Your task to perform on an android device: Open notification settings Image 0: 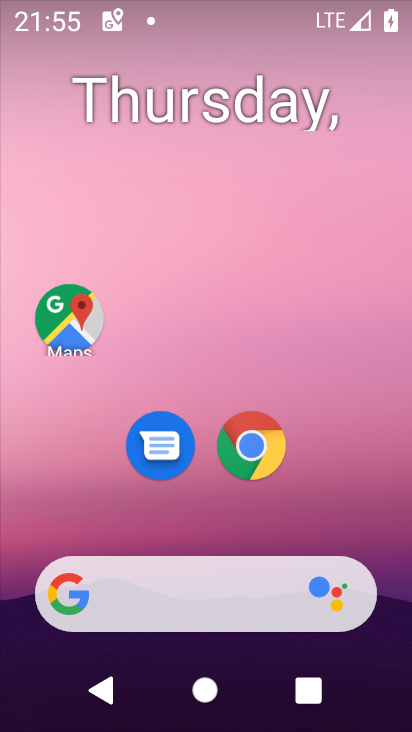
Step 0: drag from (190, 526) to (232, 170)
Your task to perform on an android device: Open notification settings Image 1: 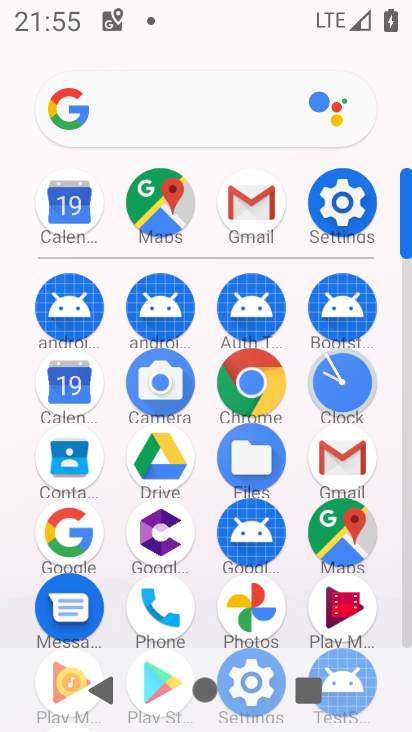
Step 1: click (342, 202)
Your task to perform on an android device: Open notification settings Image 2: 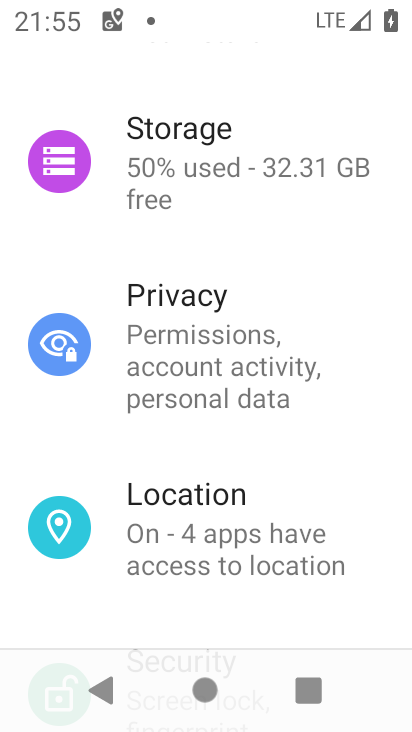
Step 2: drag from (169, 589) to (245, 126)
Your task to perform on an android device: Open notification settings Image 3: 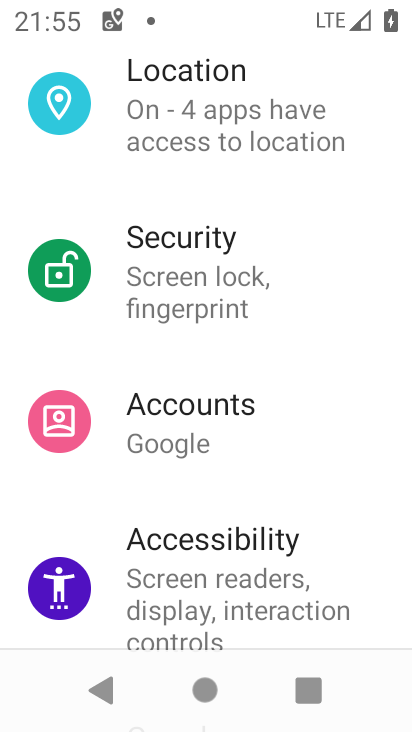
Step 3: drag from (216, 593) to (266, 215)
Your task to perform on an android device: Open notification settings Image 4: 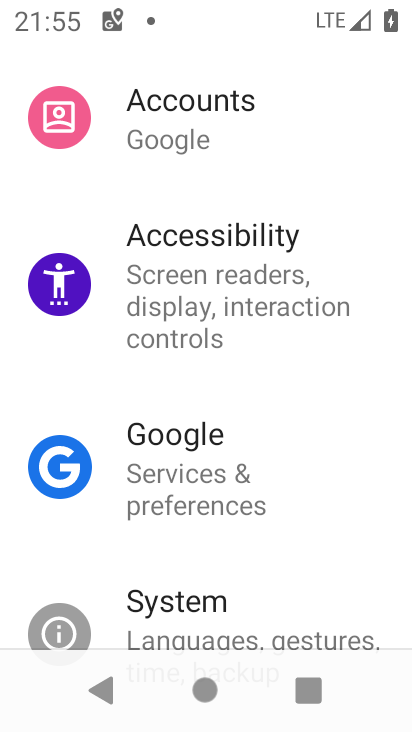
Step 4: drag from (208, 604) to (252, 308)
Your task to perform on an android device: Open notification settings Image 5: 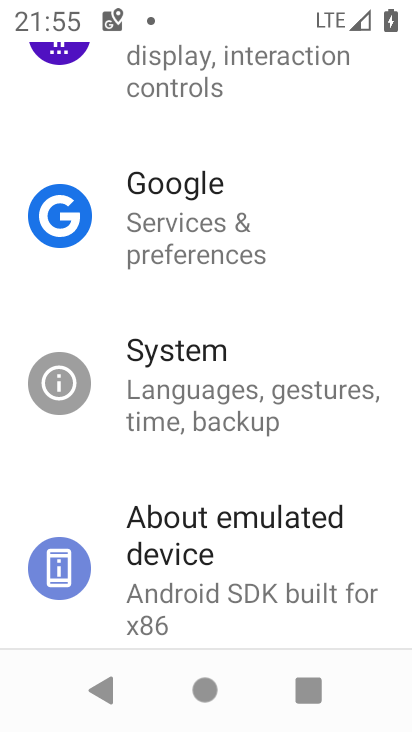
Step 5: drag from (241, 548) to (253, 256)
Your task to perform on an android device: Open notification settings Image 6: 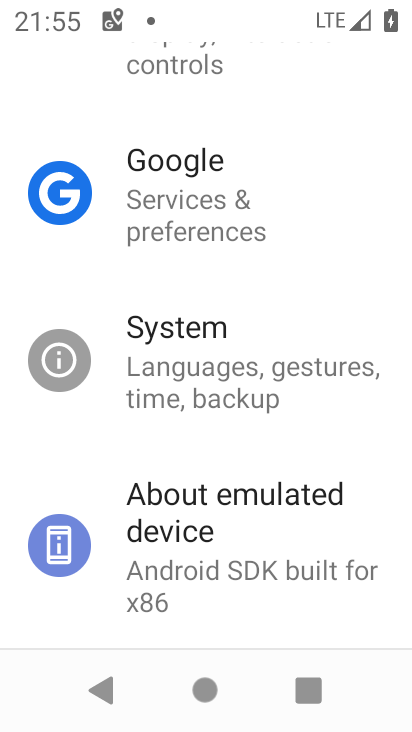
Step 6: drag from (204, 567) to (269, 266)
Your task to perform on an android device: Open notification settings Image 7: 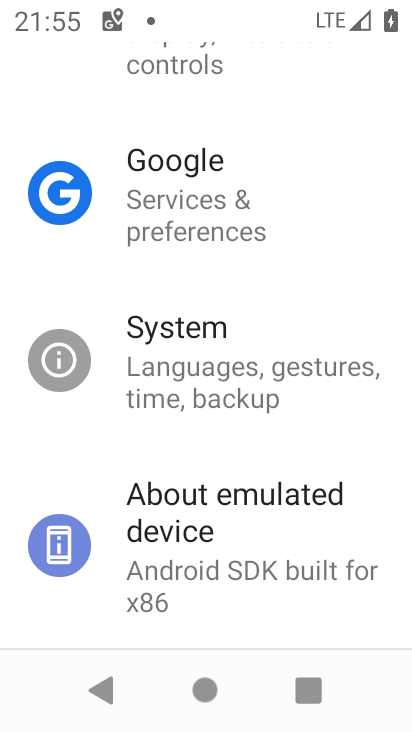
Step 7: drag from (271, 193) to (257, 563)
Your task to perform on an android device: Open notification settings Image 8: 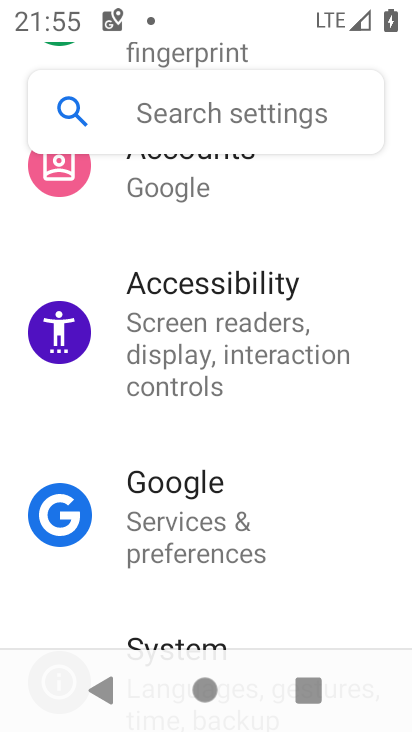
Step 8: drag from (263, 545) to (250, 132)
Your task to perform on an android device: Open notification settings Image 9: 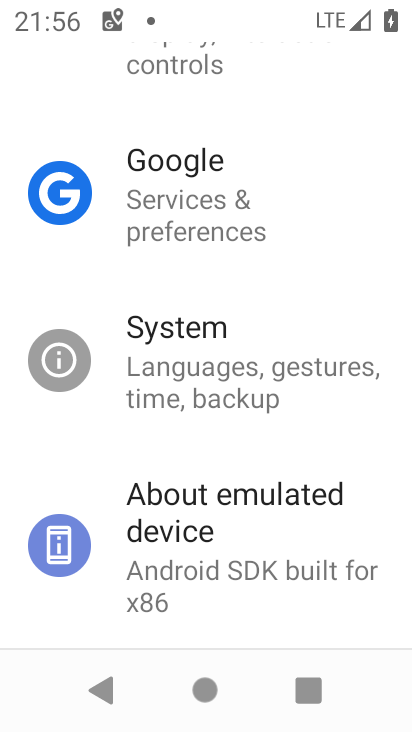
Step 9: drag from (240, 549) to (306, 184)
Your task to perform on an android device: Open notification settings Image 10: 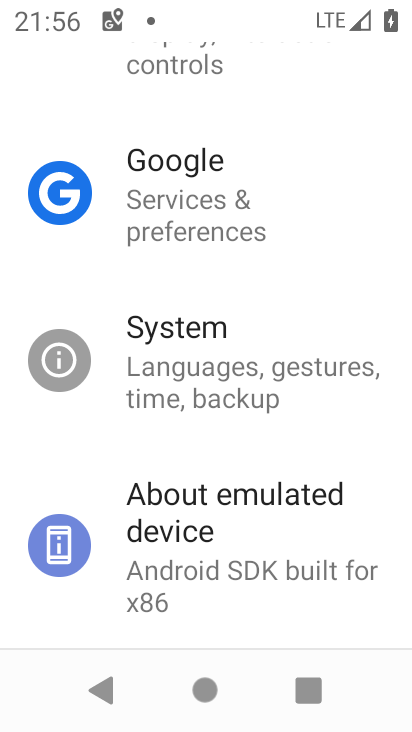
Step 10: drag from (302, 158) to (284, 719)
Your task to perform on an android device: Open notification settings Image 11: 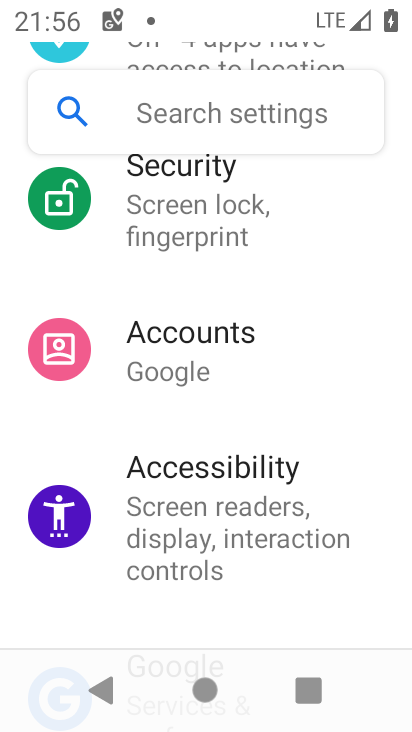
Step 11: drag from (254, 236) to (296, 657)
Your task to perform on an android device: Open notification settings Image 12: 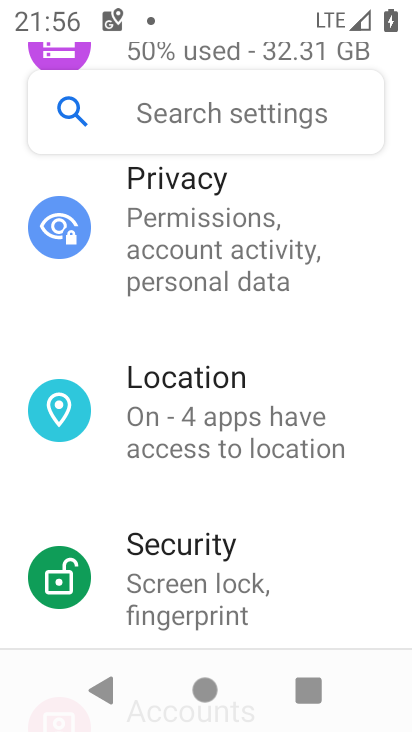
Step 12: drag from (259, 237) to (257, 603)
Your task to perform on an android device: Open notification settings Image 13: 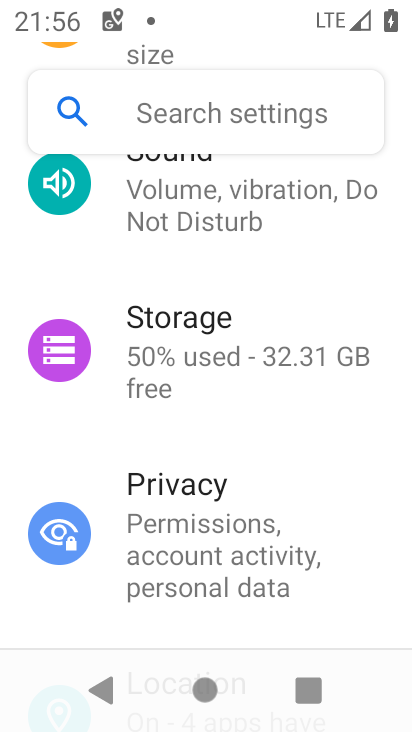
Step 13: drag from (257, 531) to (285, 728)
Your task to perform on an android device: Open notification settings Image 14: 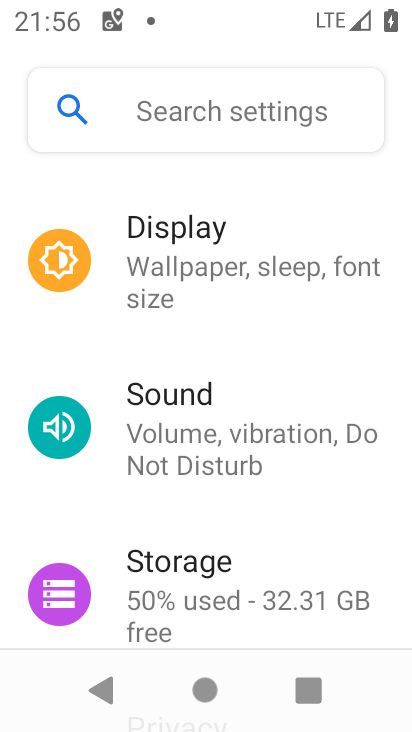
Step 14: drag from (234, 307) to (271, 720)
Your task to perform on an android device: Open notification settings Image 15: 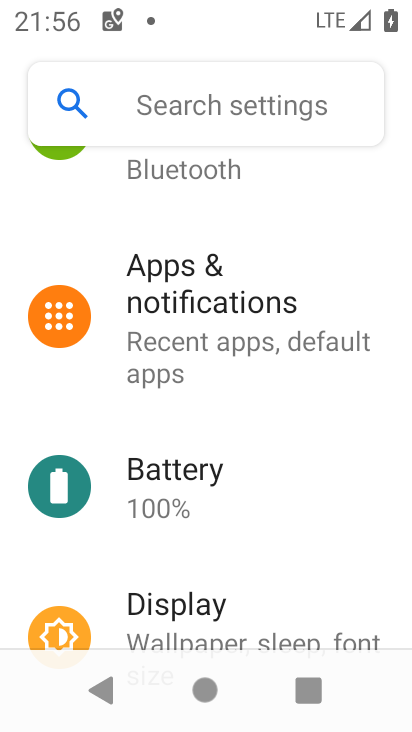
Step 15: drag from (241, 320) to (335, 717)
Your task to perform on an android device: Open notification settings Image 16: 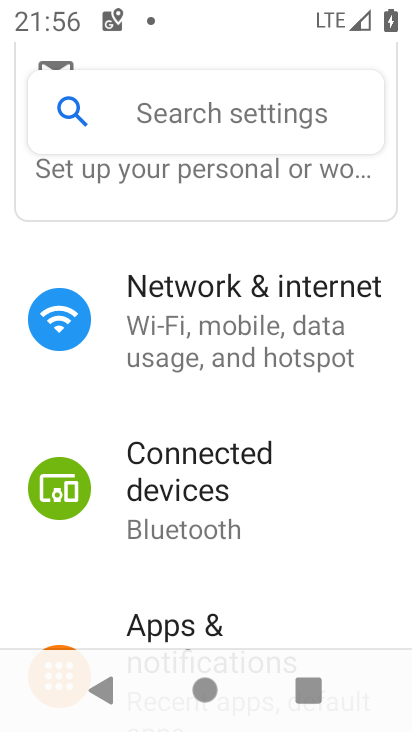
Step 16: drag from (246, 559) to (338, 246)
Your task to perform on an android device: Open notification settings Image 17: 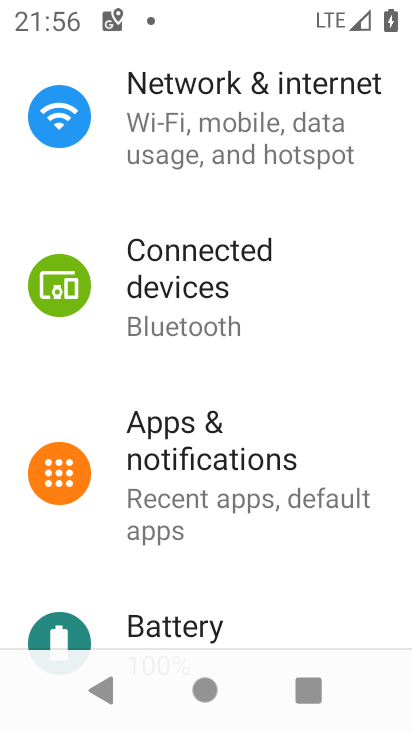
Step 17: click (208, 433)
Your task to perform on an android device: Open notification settings Image 18: 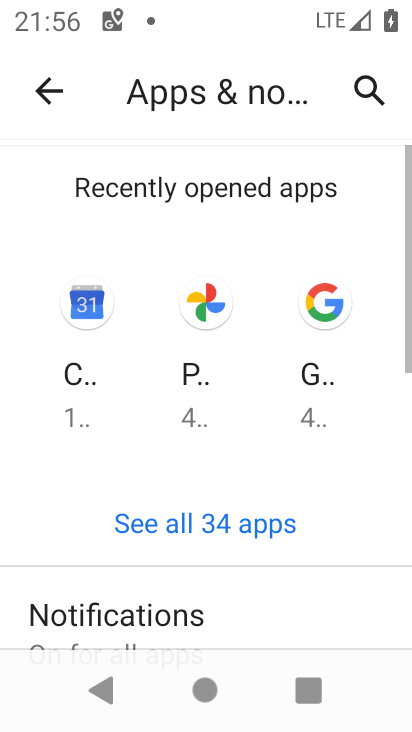
Step 18: drag from (265, 543) to (373, 151)
Your task to perform on an android device: Open notification settings Image 19: 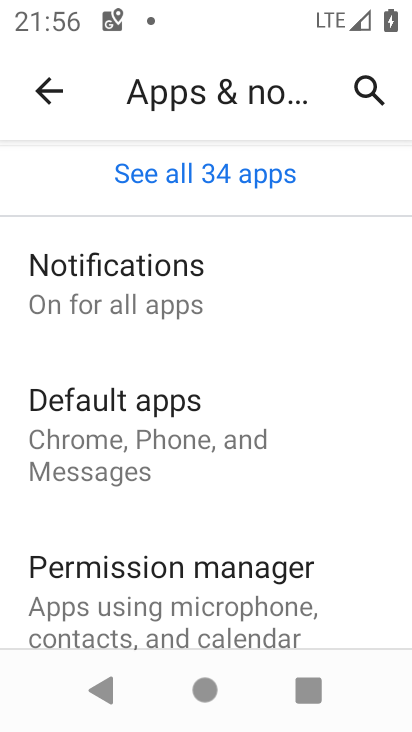
Step 19: click (217, 297)
Your task to perform on an android device: Open notification settings Image 20: 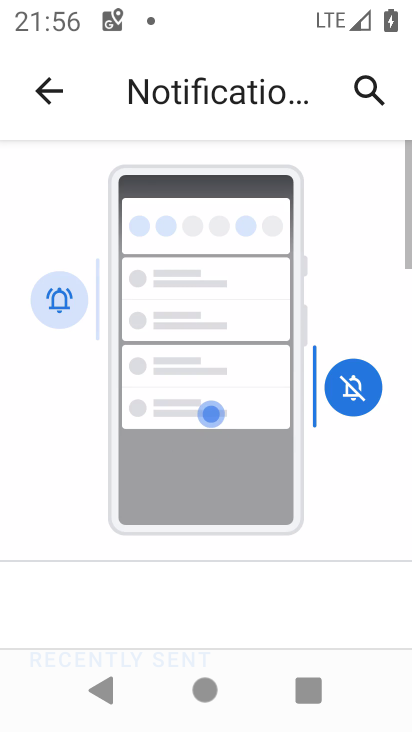
Step 20: task complete